Your task to perform on an android device: Open CNN.com Image 0: 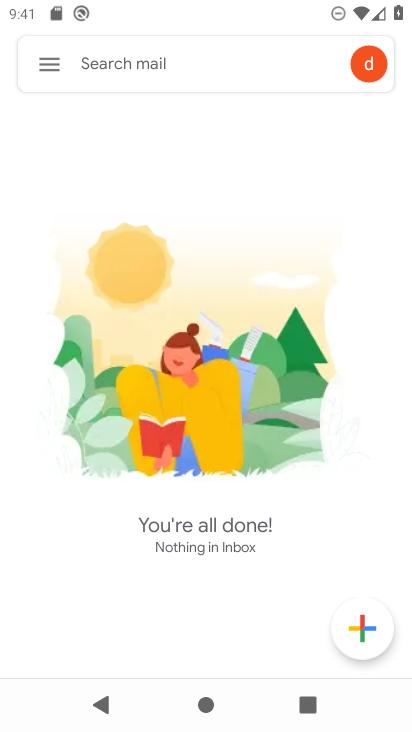
Step 0: press home button
Your task to perform on an android device: Open CNN.com Image 1: 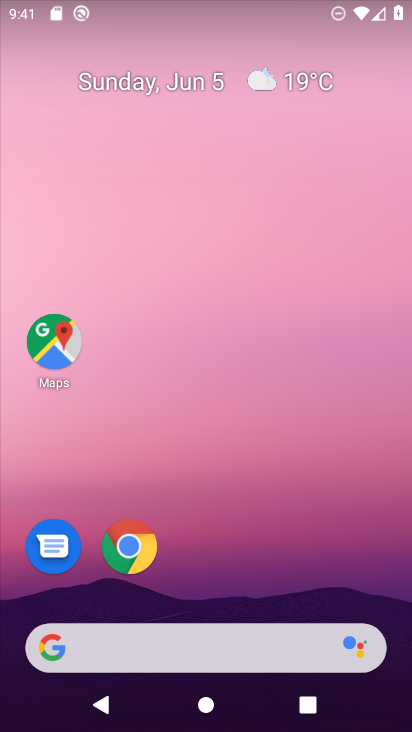
Step 1: click (132, 562)
Your task to perform on an android device: Open CNN.com Image 2: 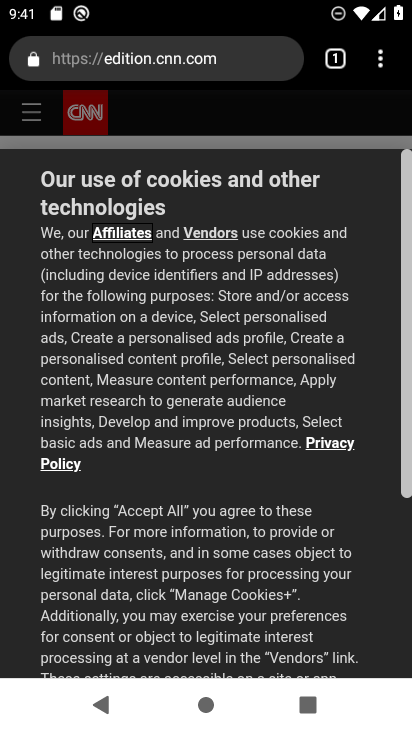
Step 2: drag from (263, 623) to (190, 148)
Your task to perform on an android device: Open CNN.com Image 3: 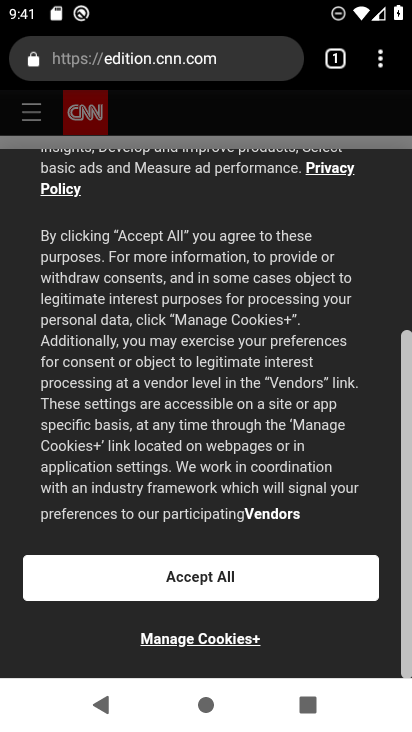
Step 3: click (227, 569)
Your task to perform on an android device: Open CNN.com Image 4: 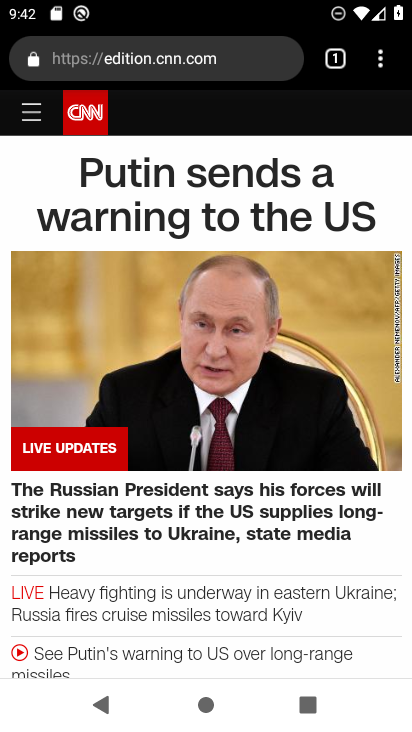
Step 4: task complete